Your task to perform on an android device: Go to Wikipedia Image 0: 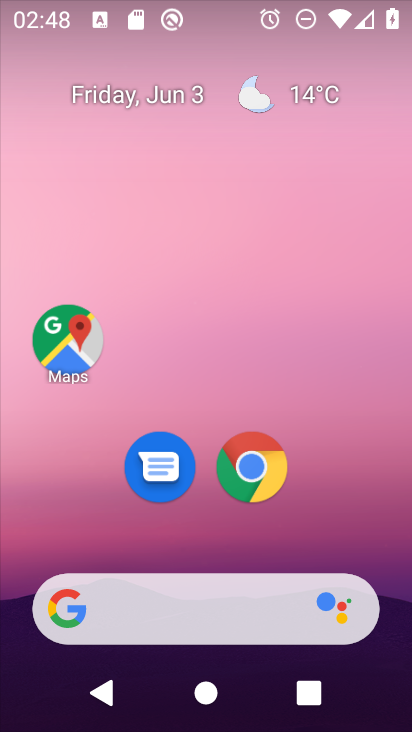
Step 0: click (251, 460)
Your task to perform on an android device: Go to Wikipedia Image 1: 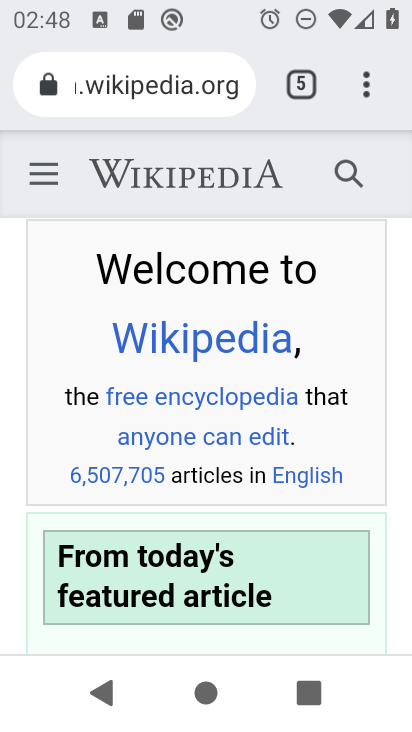
Step 1: task complete